Your task to perform on an android device: delete browsing data in the chrome app Image 0: 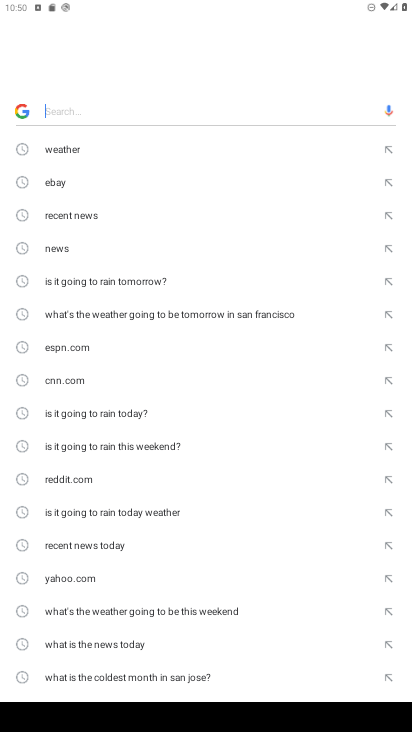
Step 0: press home button
Your task to perform on an android device: delete browsing data in the chrome app Image 1: 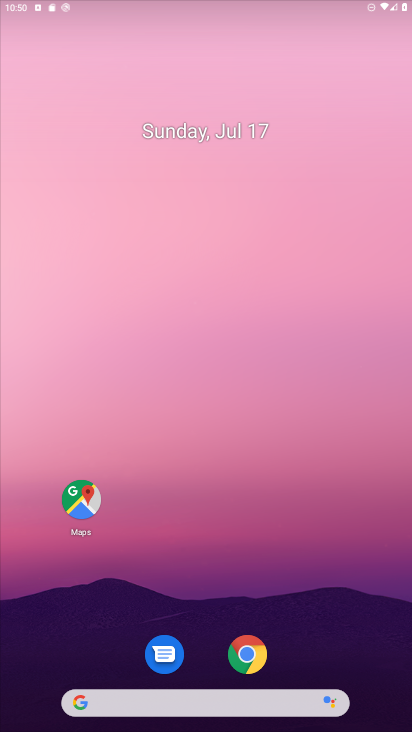
Step 1: click (258, 655)
Your task to perform on an android device: delete browsing data in the chrome app Image 2: 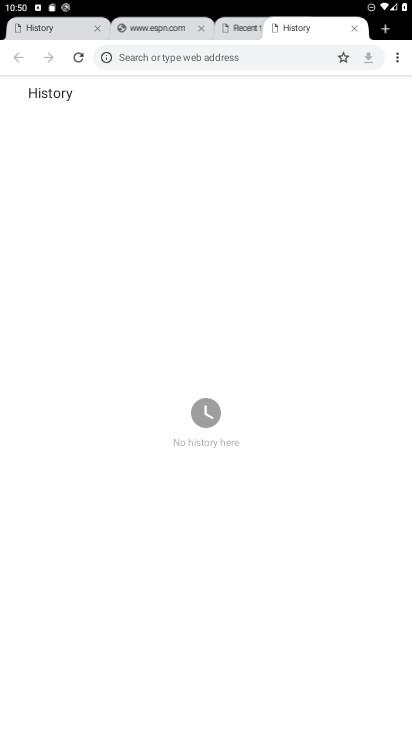
Step 2: task complete